Your task to perform on an android device: Show me recent news Image 0: 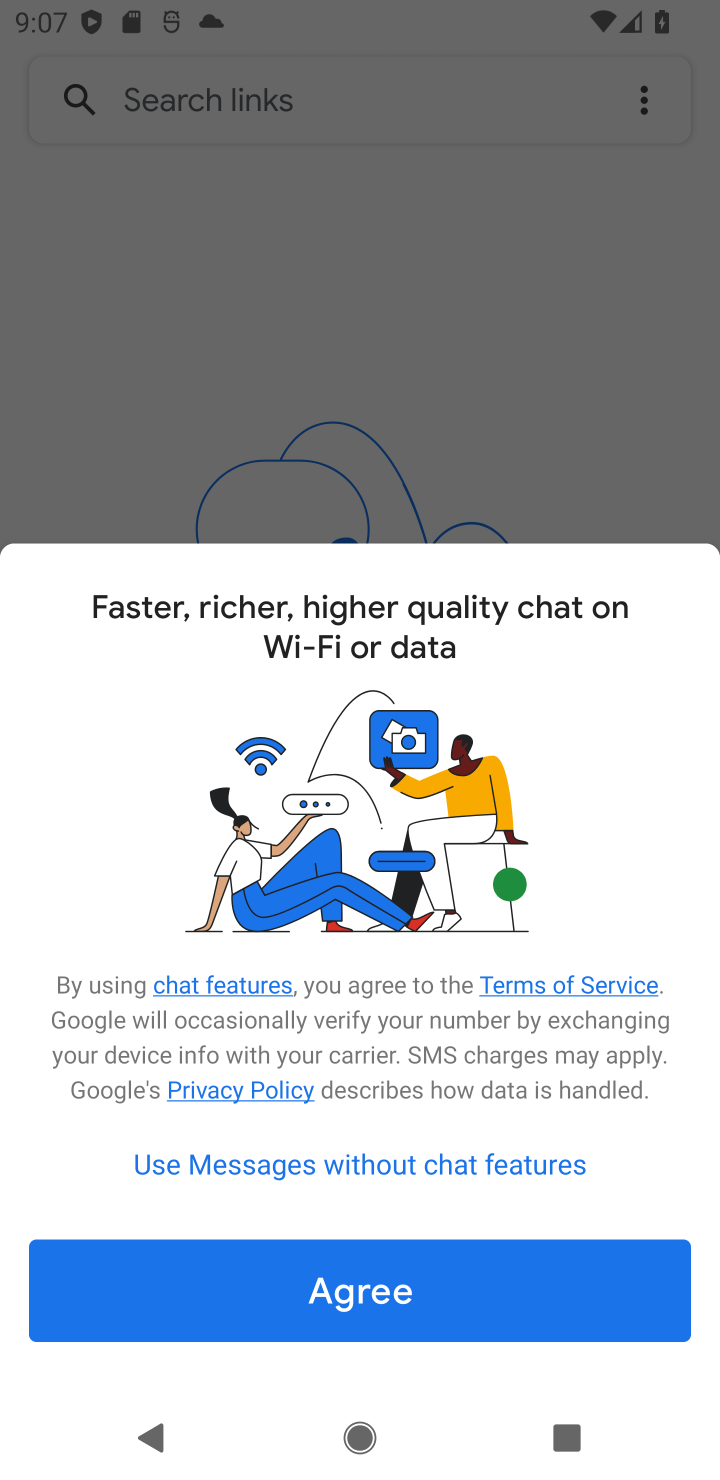
Step 0: press home button
Your task to perform on an android device: Show me recent news Image 1: 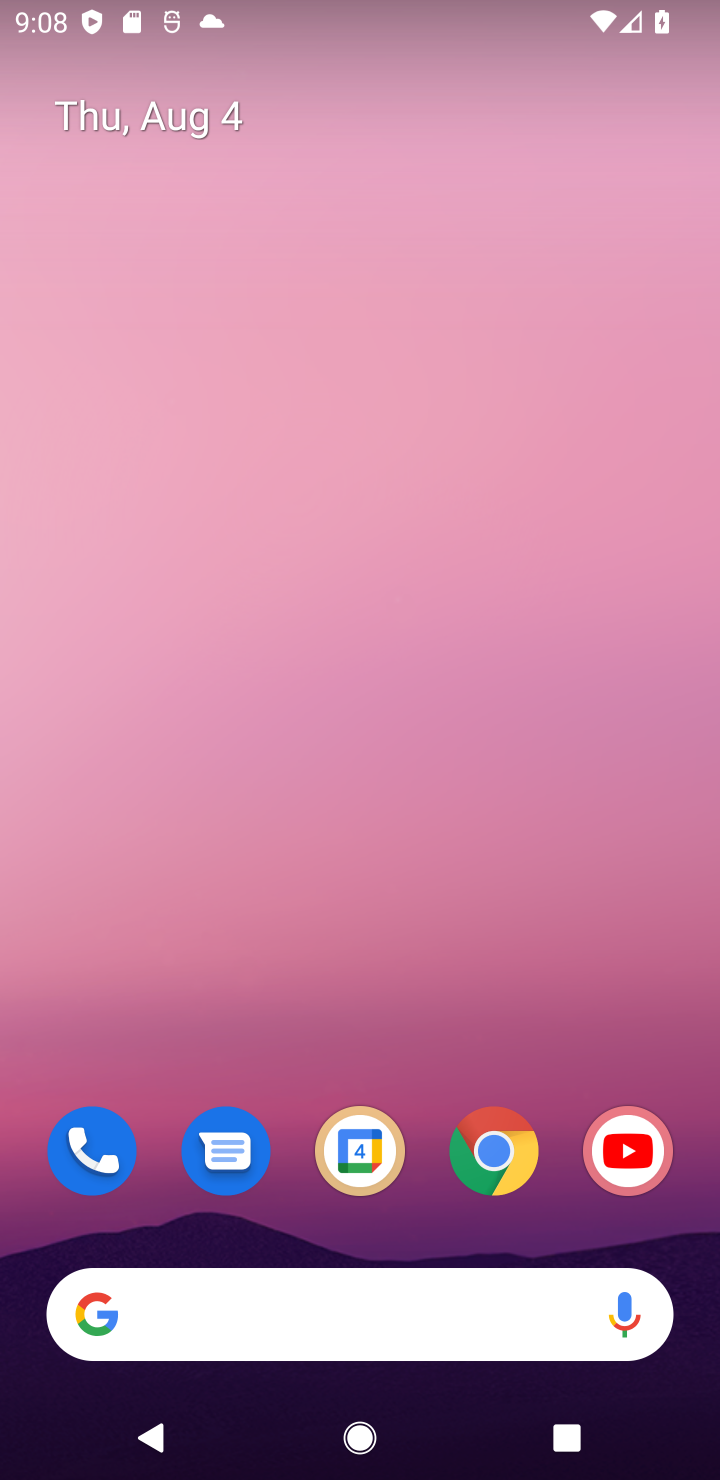
Step 1: task complete